Your task to perform on an android device: Open Android settings Image 0: 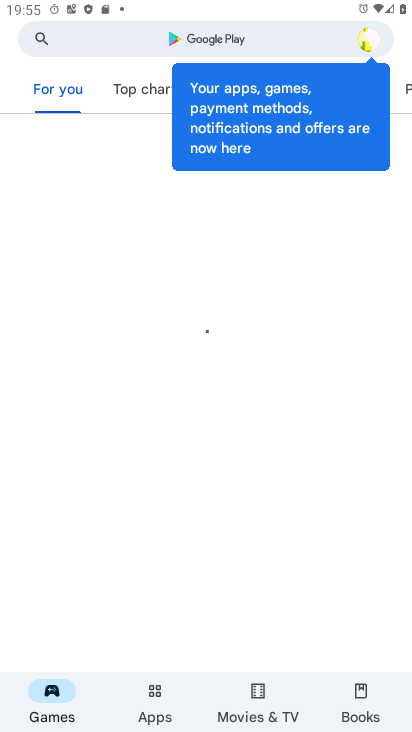
Step 0: press home button
Your task to perform on an android device: Open Android settings Image 1: 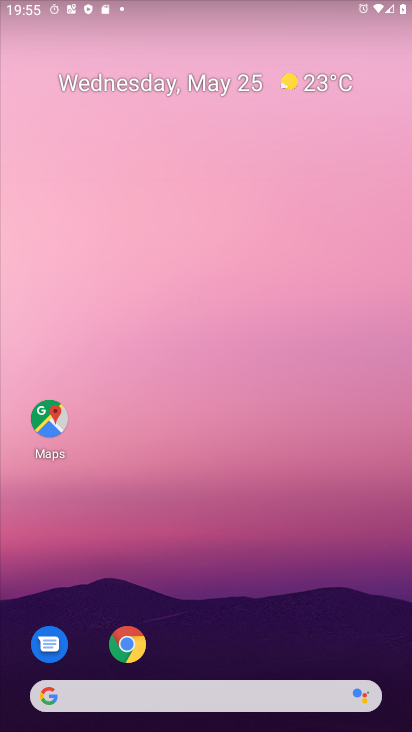
Step 1: drag from (261, 710) to (324, 182)
Your task to perform on an android device: Open Android settings Image 2: 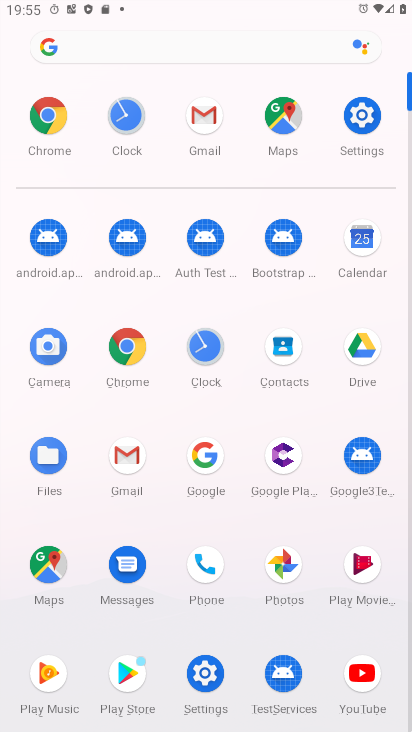
Step 2: click (358, 124)
Your task to perform on an android device: Open Android settings Image 3: 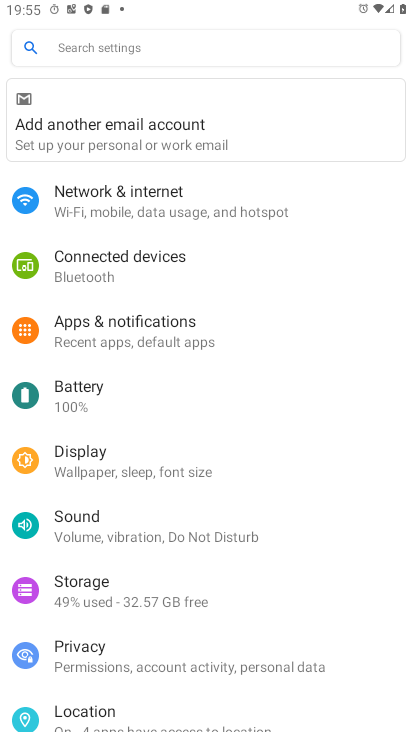
Step 3: click (159, 62)
Your task to perform on an android device: Open Android settings Image 4: 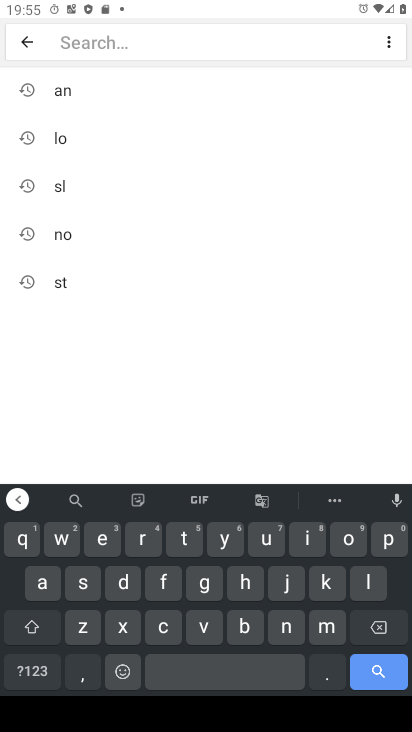
Step 4: click (32, 585)
Your task to perform on an android device: Open Android settings Image 5: 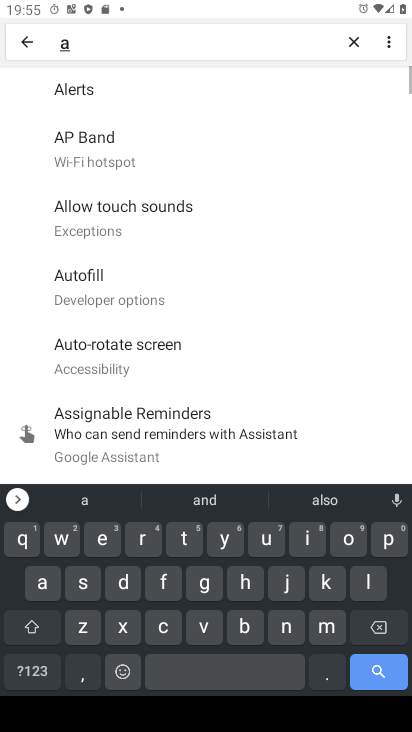
Step 5: click (281, 626)
Your task to perform on an android device: Open Android settings Image 6: 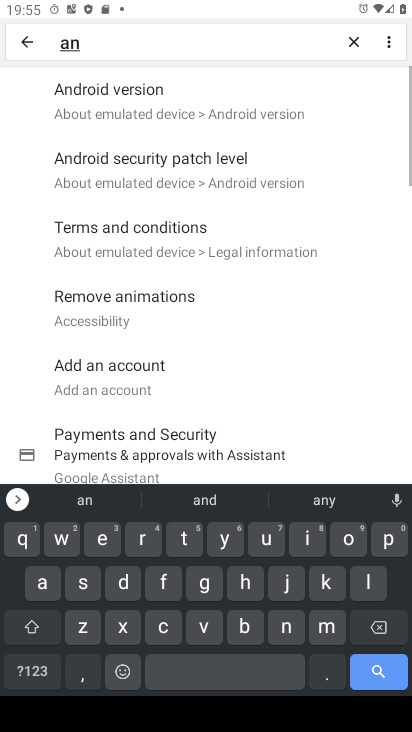
Step 6: click (133, 106)
Your task to perform on an android device: Open Android settings Image 7: 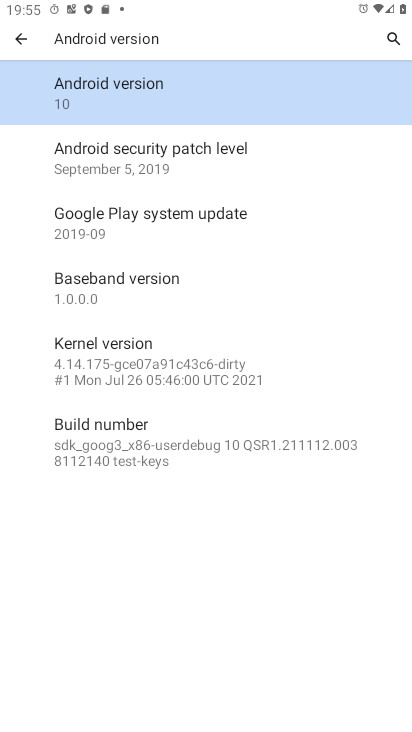
Step 7: task complete